Your task to perform on an android device: Search for "usb-a" on ebay, select the first entry, and add it to the cart. Image 0: 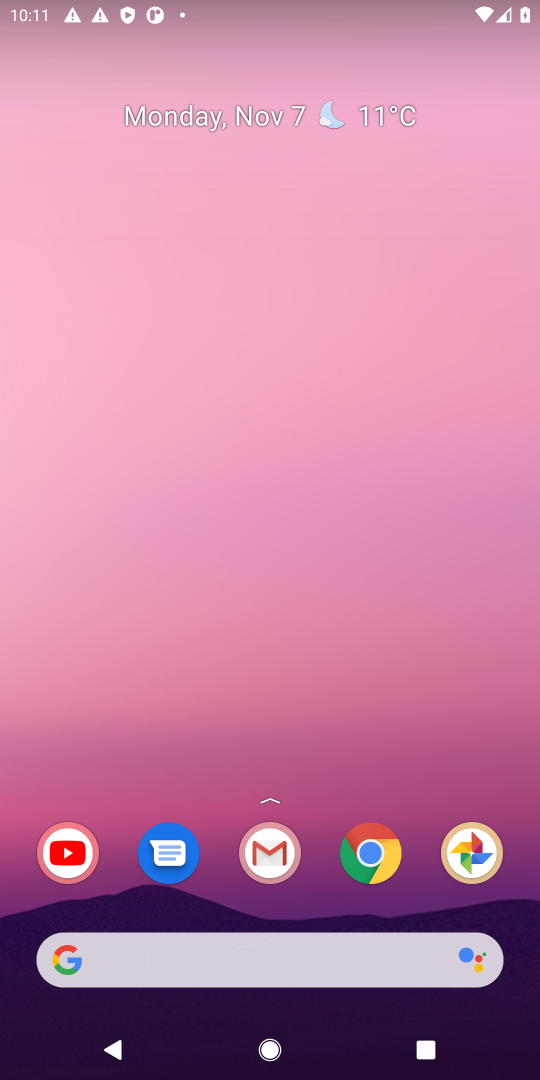
Step 0: click (301, 973)
Your task to perform on an android device: Search for "usb-a" on ebay, select the first entry, and add it to the cart. Image 1: 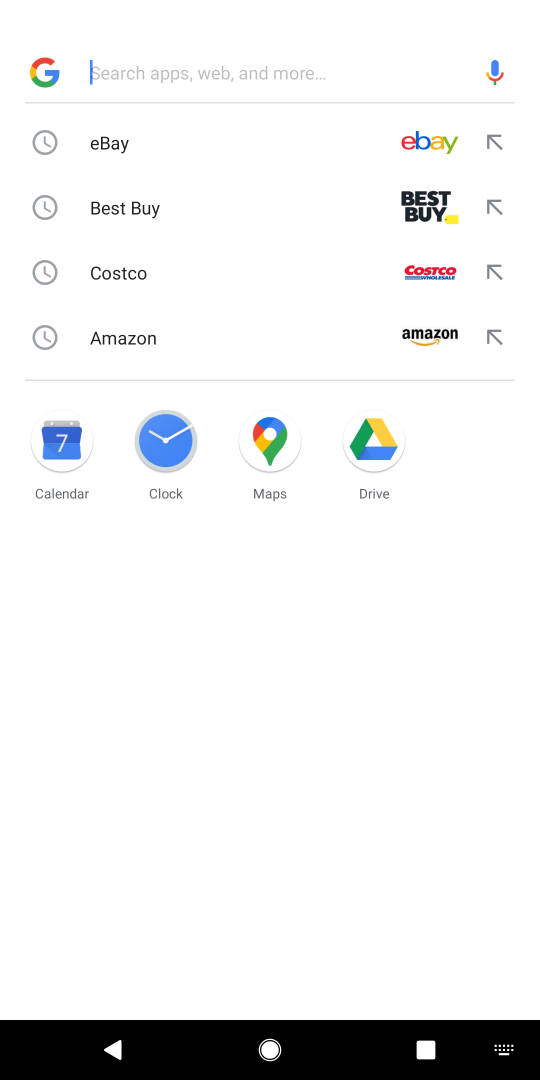
Step 1: click (127, 124)
Your task to perform on an android device: Search for "usb-a" on ebay, select the first entry, and add it to the cart. Image 2: 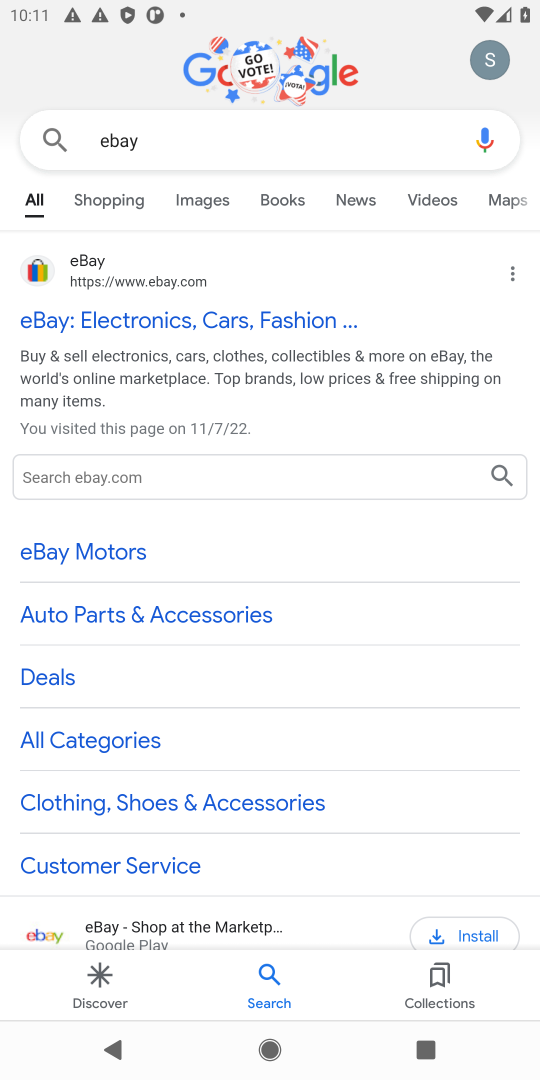
Step 2: click (185, 338)
Your task to perform on an android device: Search for "usb-a" on ebay, select the first entry, and add it to the cart. Image 3: 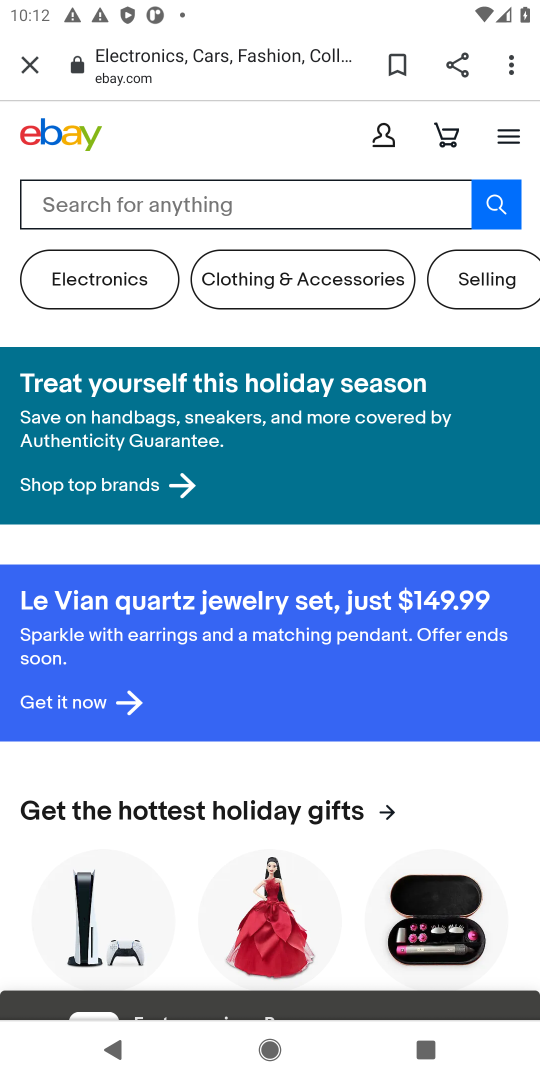
Step 3: click (204, 214)
Your task to perform on an android device: Search for "usb-a" on ebay, select the first entry, and add it to the cart. Image 4: 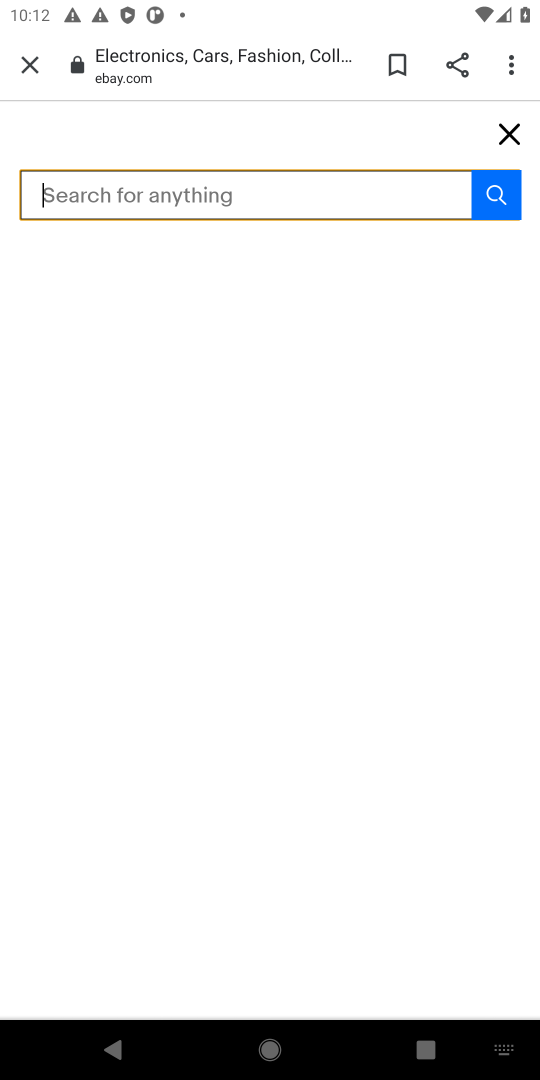
Step 4: type "usb-a"
Your task to perform on an android device: Search for "usb-a" on ebay, select the first entry, and add it to the cart. Image 5: 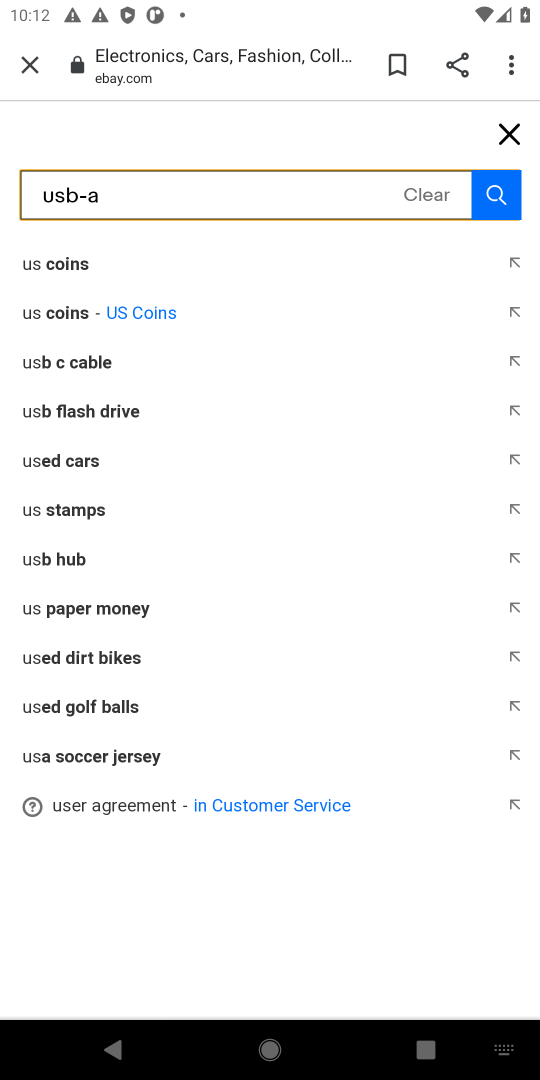
Step 5: click (515, 202)
Your task to perform on an android device: Search for "usb-a" on ebay, select the first entry, and add it to the cart. Image 6: 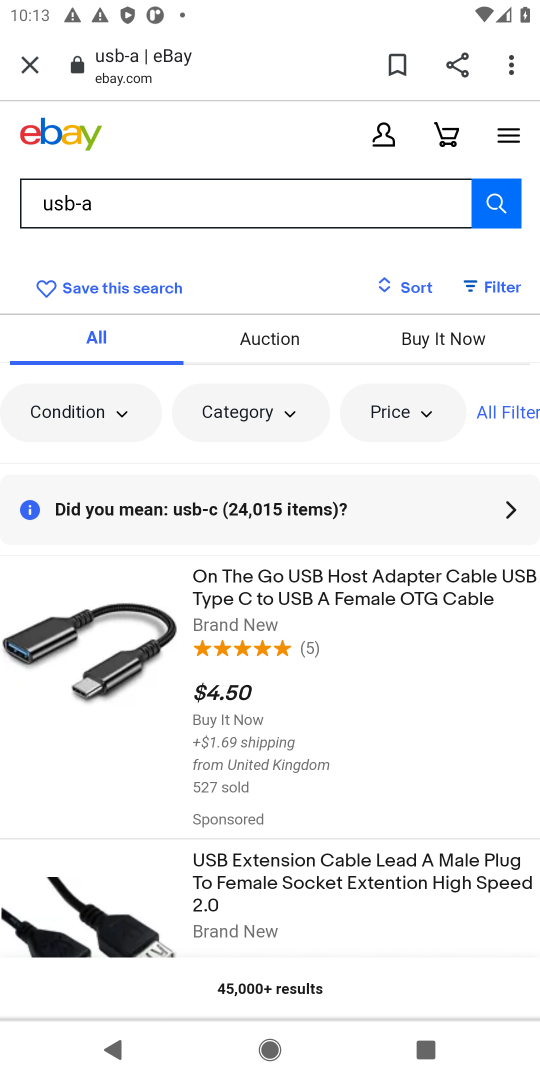
Step 6: click (272, 579)
Your task to perform on an android device: Search for "usb-a" on ebay, select the first entry, and add it to the cart. Image 7: 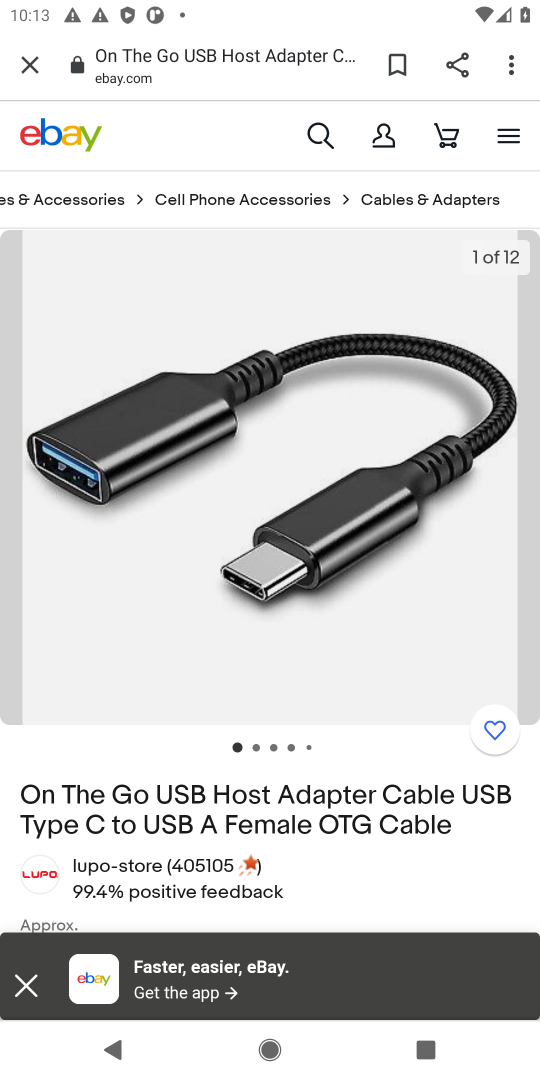
Step 7: task complete